Your task to perform on an android device: Open battery settings Image 0: 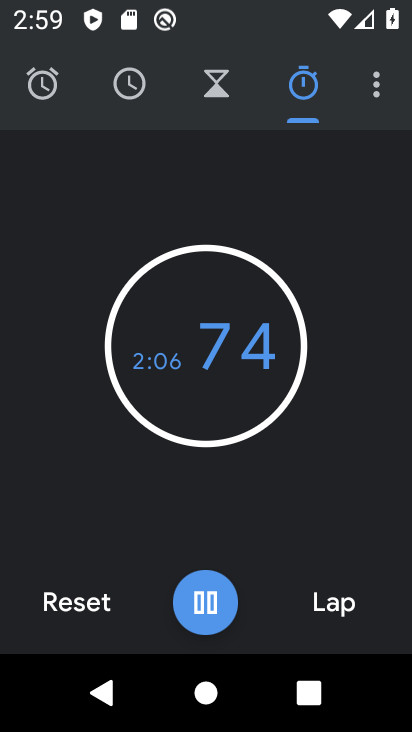
Step 0: press home button
Your task to perform on an android device: Open battery settings Image 1: 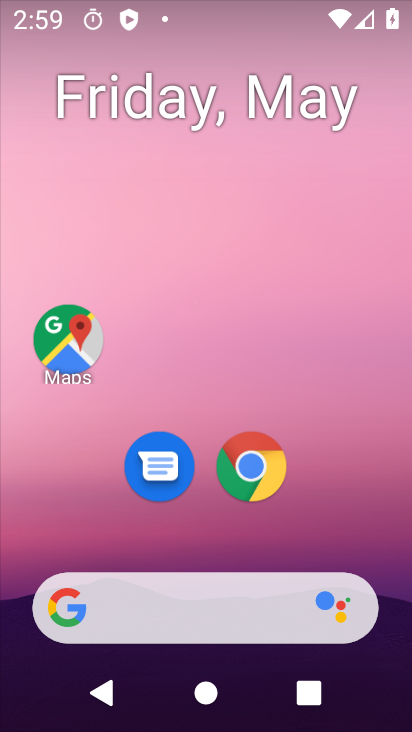
Step 1: drag from (195, 555) to (191, 80)
Your task to perform on an android device: Open battery settings Image 2: 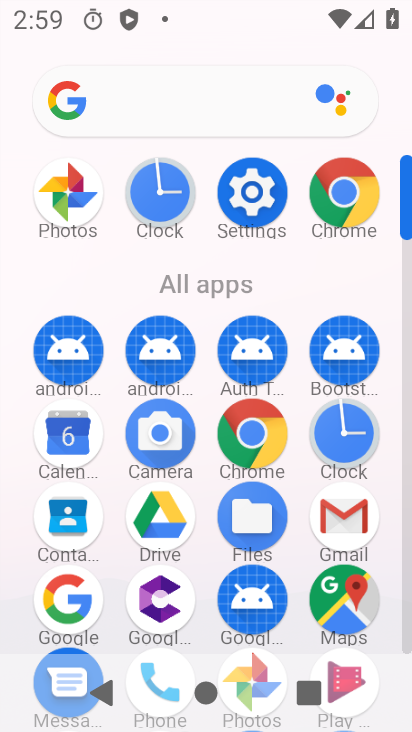
Step 2: click (248, 178)
Your task to perform on an android device: Open battery settings Image 3: 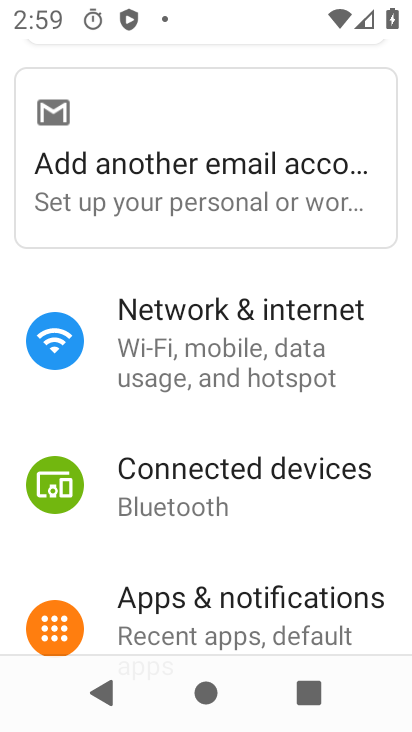
Step 3: drag from (258, 547) to (275, 114)
Your task to perform on an android device: Open battery settings Image 4: 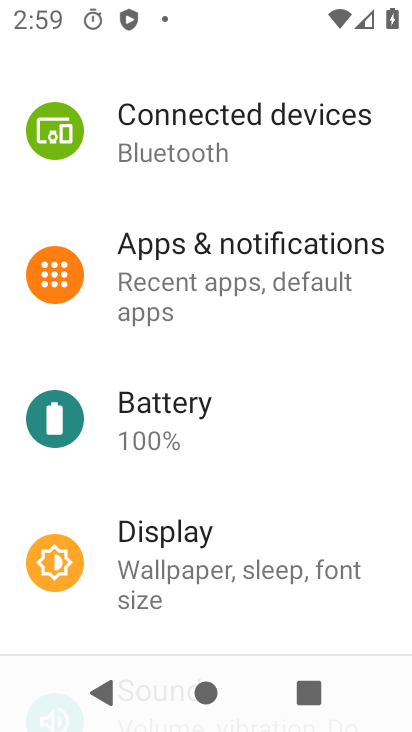
Step 4: click (217, 423)
Your task to perform on an android device: Open battery settings Image 5: 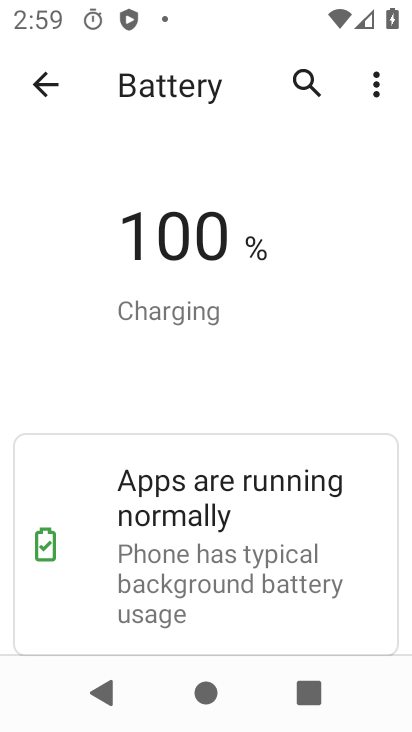
Step 5: task complete